Your task to perform on an android device: check the backup settings in the google photos Image 0: 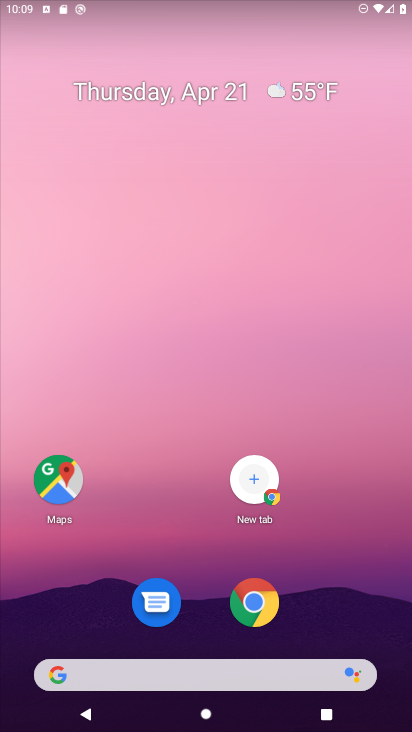
Step 0: drag from (210, 606) to (192, 76)
Your task to perform on an android device: check the backup settings in the google photos Image 1: 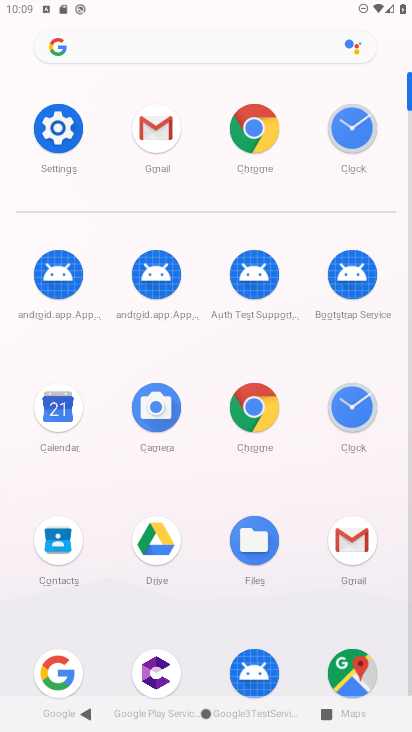
Step 1: drag from (216, 636) to (170, 244)
Your task to perform on an android device: check the backup settings in the google photos Image 2: 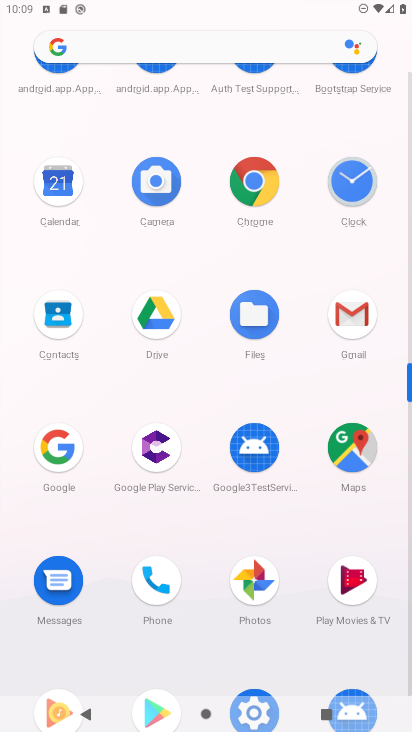
Step 2: click (270, 571)
Your task to perform on an android device: check the backup settings in the google photos Image 3: 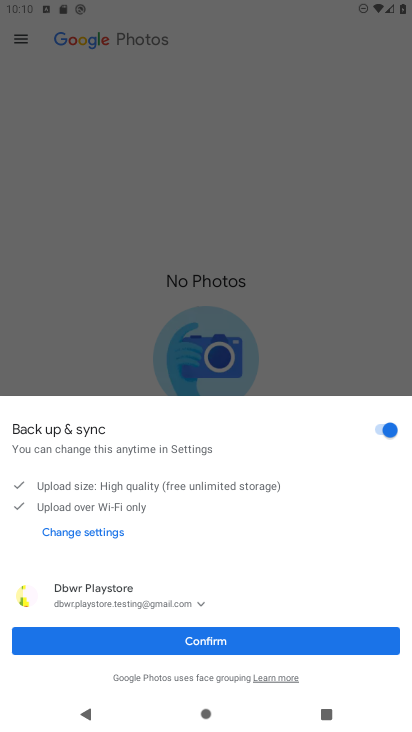
Step 3: click (191, 640)
Your task to perform on an android device: check the backup settings in the google photos Image 4: 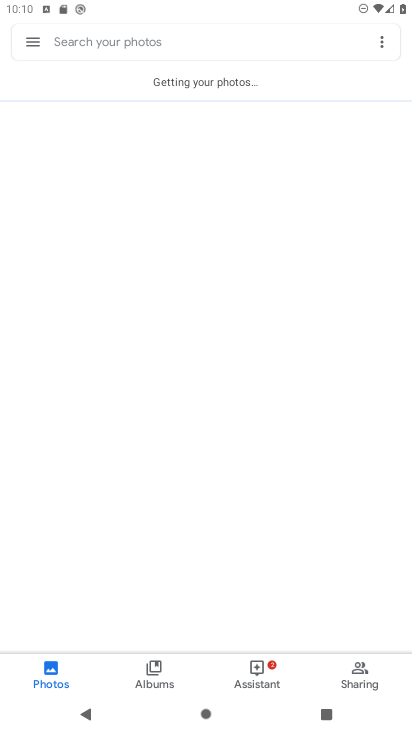
Step 4: click (42, 48)
Your task to perform on an android device: check the backup settings in the google photos Image 5: 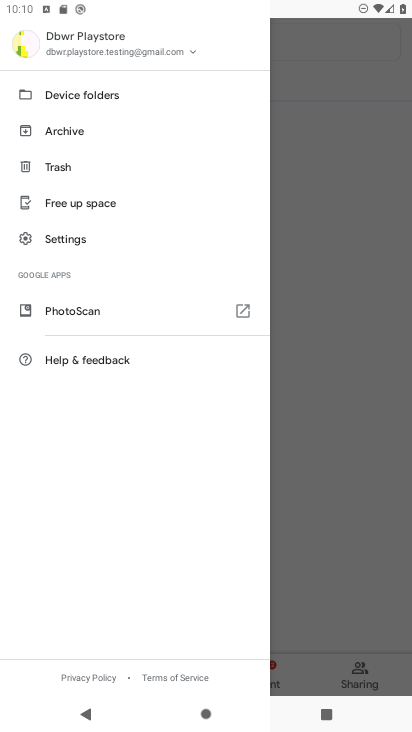
Step 5: click (107, 238)
Your task to perform on an android device: check the backup settings in the google photos Image 6: 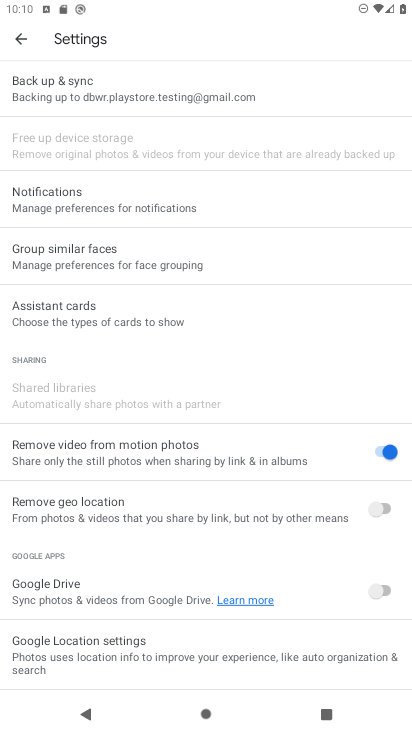
Step 6: click (180, 106)
Your task to perform on an android device: check the backup settings in the google photos Image 7: 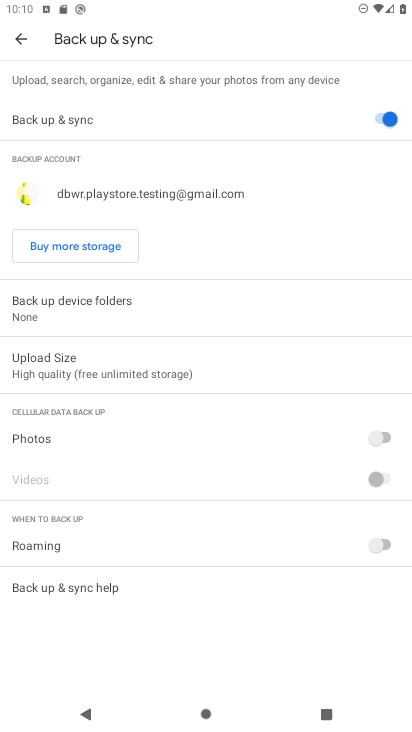
Step 7: task complete